Your task to perform on an android device: What is the recent news? Image 0: 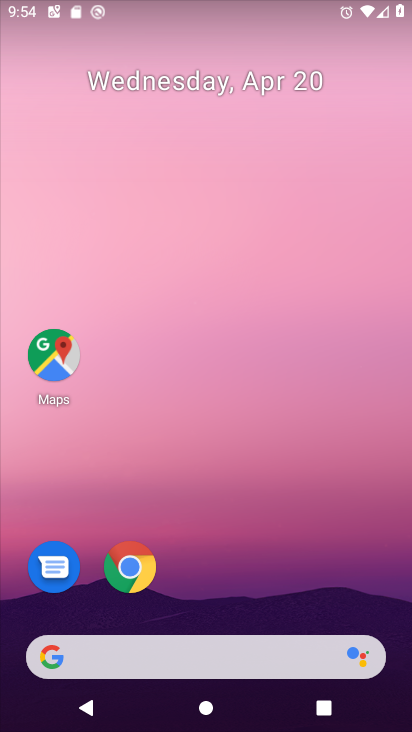
Step 0: drag from (3, 253) to (405, 364)
Your task to perform on an android device: What is the recent news? Image 1: 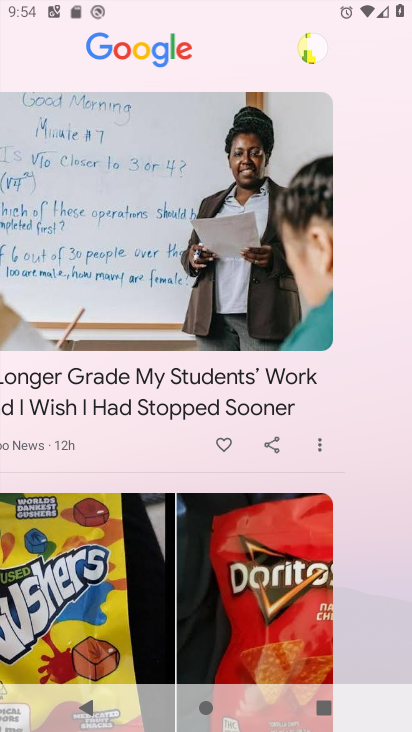
Step 1: task complete